Your task to perform on an android device: add a label to a message in the gmail app Image 0: 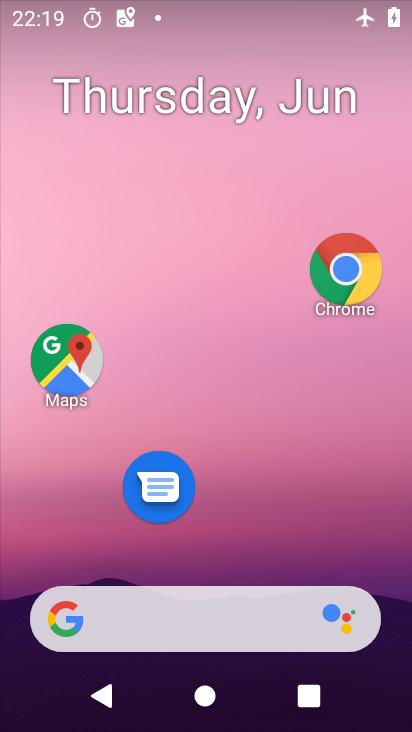
Step 0: click (350, 36)
Your task to perform on an android device: add a label to a message in the gmail app Image 1: 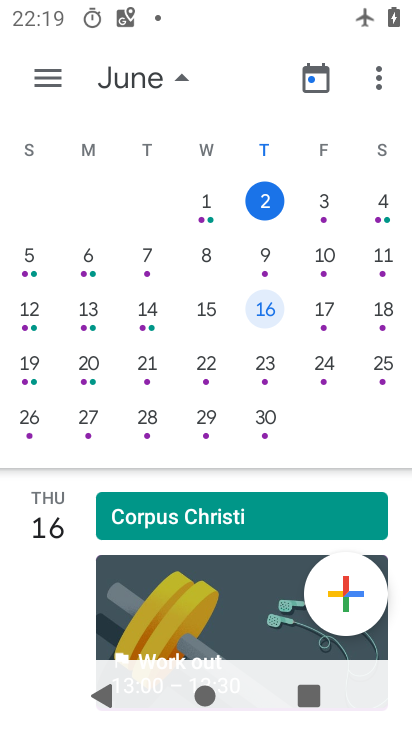
Step 1: press home button
Your task to perform on an android device: add a label to a message in the gmail app Image 2: 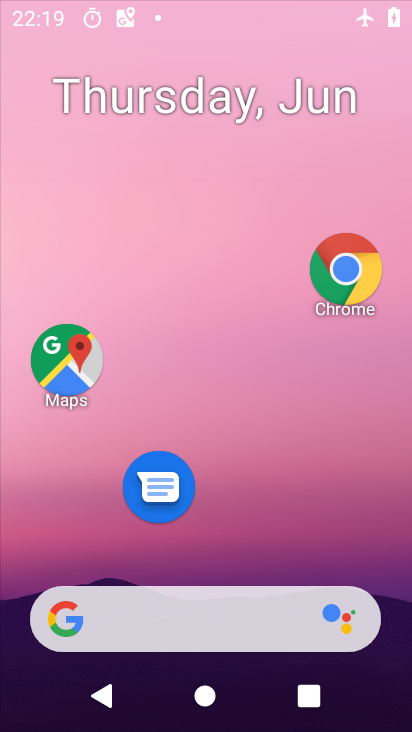
Step 2: drag from (188, 602) to (237, 131)
Your task to perform on an android device: add a label to a message in the gmail app Image 3: 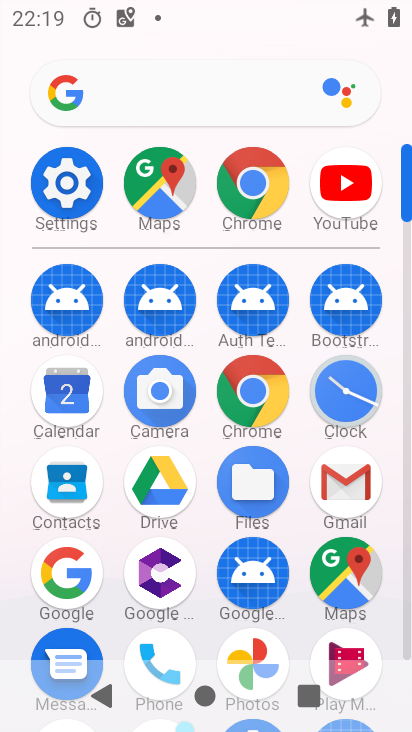
Step 3: click (349, 492)
Your task to perform on an android device: add a label to a message in the gmail app Image 4: 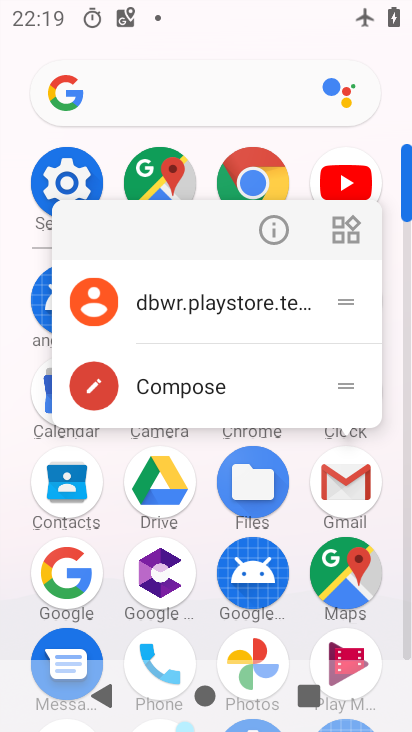
Step 4: click (274, 215)
Your task to perform on an android device: add a label to a message in the gmail app Image 5: 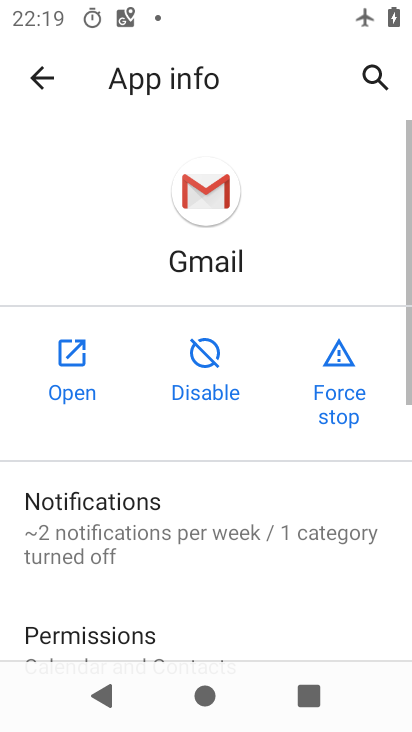
Step 5: click (72, 338)
Your task to perform on an android device: add a label to a message in the gmail app Image 6: 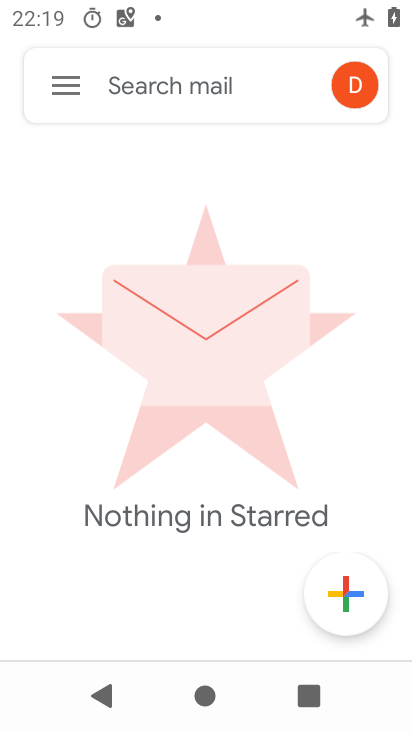
Step 6: drag from (223, 519) to (266, 155)
Your task to perform on an android device: add a label to a message in the gmail app Image 7: 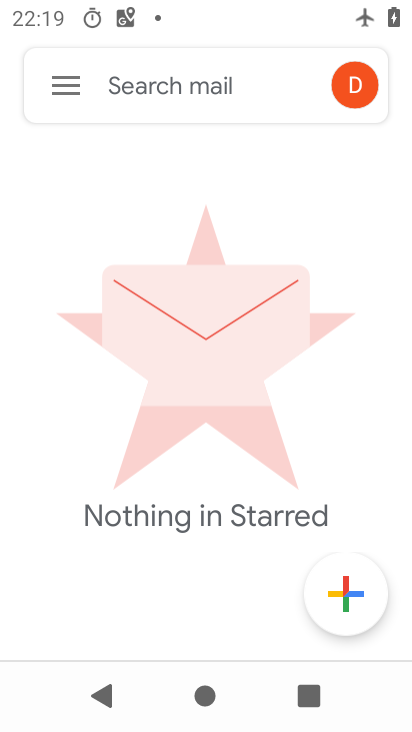
Step 7: click (60, 93)
Your task to perform on an android device: add a label to a message in the gmail app Image 8: 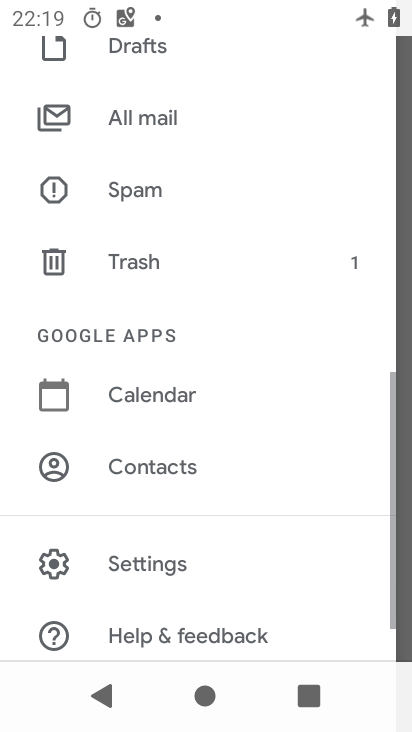
Step 8: drag from (210, 580) to (265, 143)
Your task to perform on an android device: add a label to a message in the gmail app Image 9: 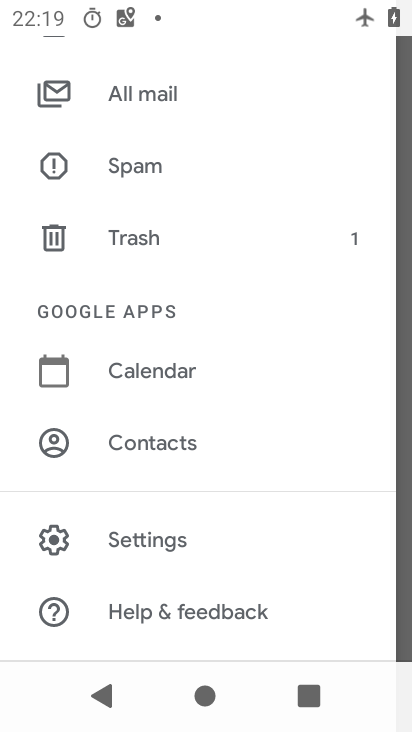
Step 9: drag from (233, 166) to (337, 728)
Your task to perform on an android device: add a label to a message in the gmail app Image 10: 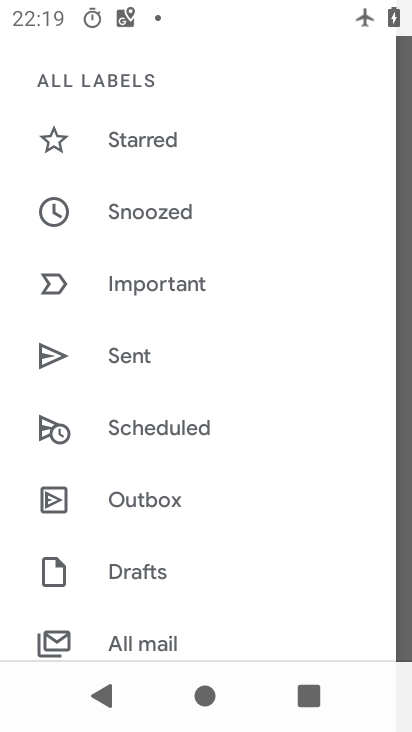
Step 10: drag from (201, 253) to (312, 715)
Your task to perform on an android device: add a label to a message in the gmail app Image 11: 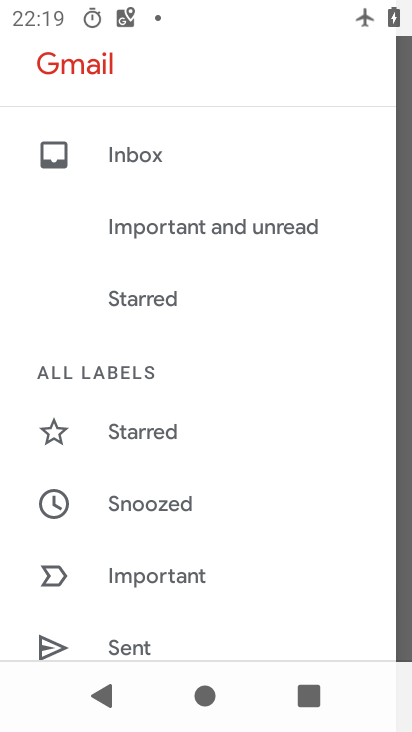
Step 11: click (182, 158)
Your task to perform on an android device: add a label to a message in the gmail app Image 12: 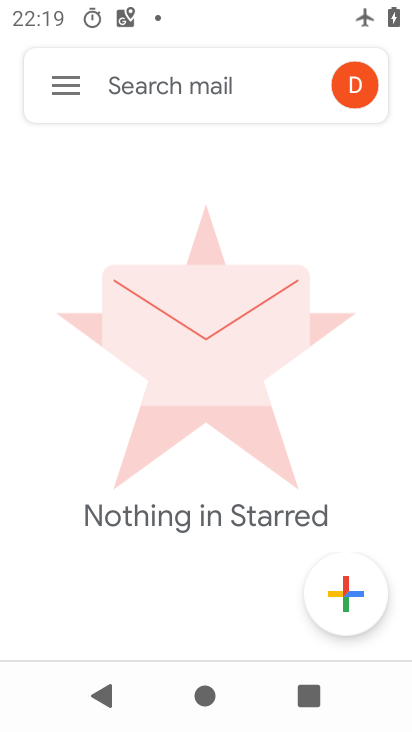
Step 12: task complete